Your task to perform on an android device: delete the emails in spam in the gmail app Image 0: 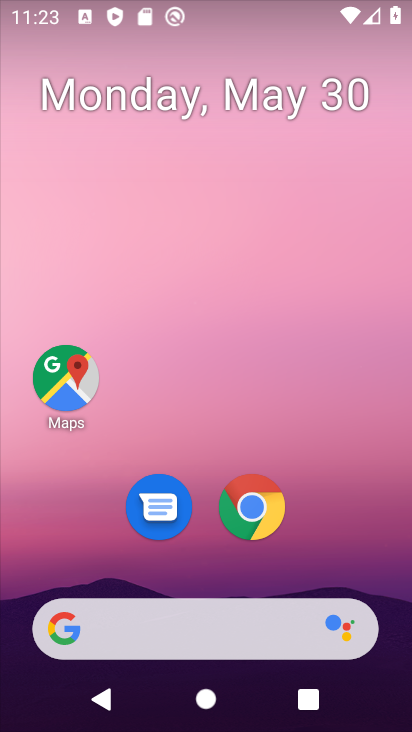
Step 0: drag from (355, 479) to (282, 8)
Your task to perform on an android device: delete the emails in spam in the gmail app Image 1: 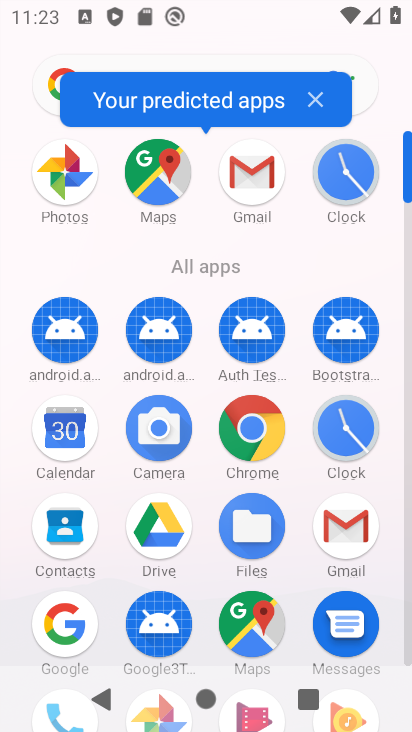
Step 1: click (250, 185)
Your task to perform on an android device: delete the emails in spam in the gmail app Image 2: 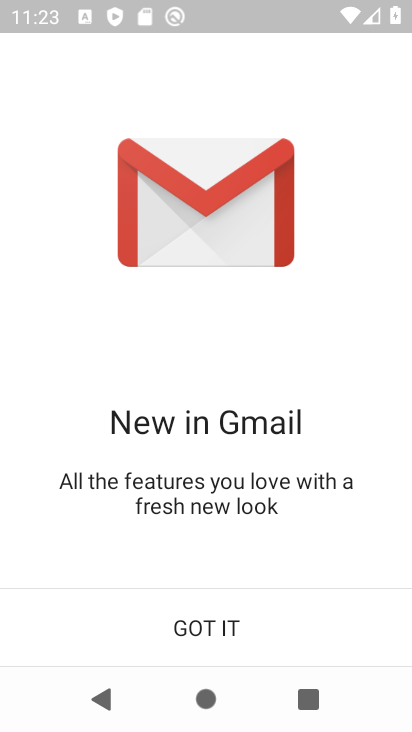
Step 2: click (210, 605)
Your task to perform on an android device: delete the emails in spam in the gmail app Image 3: 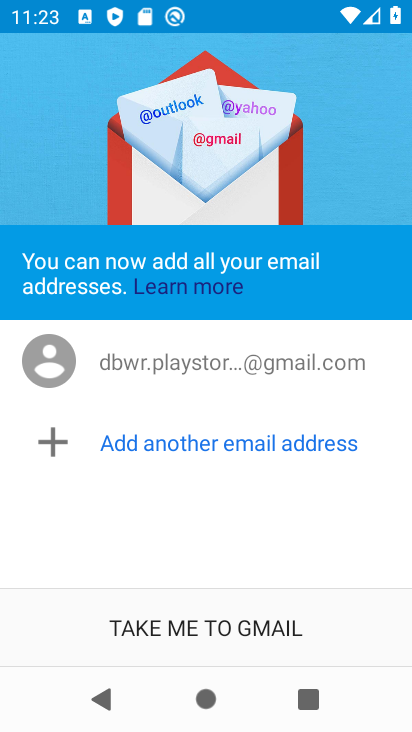
Step 3: click (224, 620)
Your task to perform on an android device: delete the emails in spam in the gmail app Image 4: 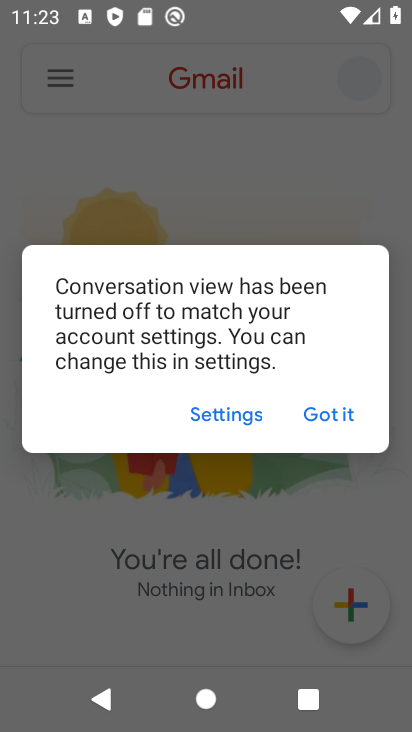
Step 4: click (318, 412)
Your task to perform on an android device: delete the emails in spam in the gmail app Image 5: 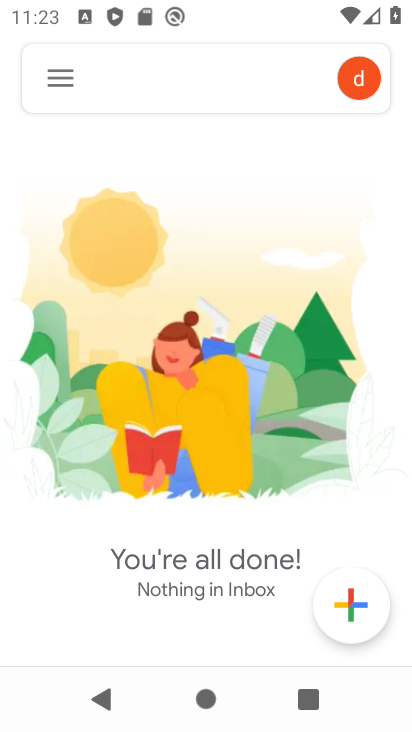
Step 5: click (79, 81)
Your task to perform on an android device: delete the emails in spam in the gmail app Image 6: 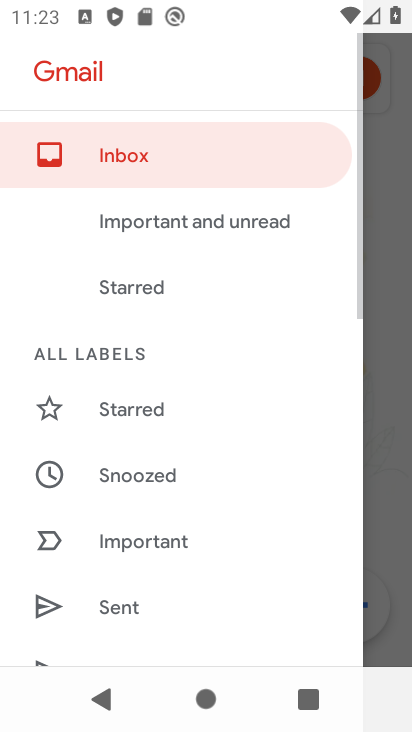
Step 6: drag from (156, 584) to (201, 155)
Your task to perform on an android device: delete the emails in spam in the gmail app Image 7: 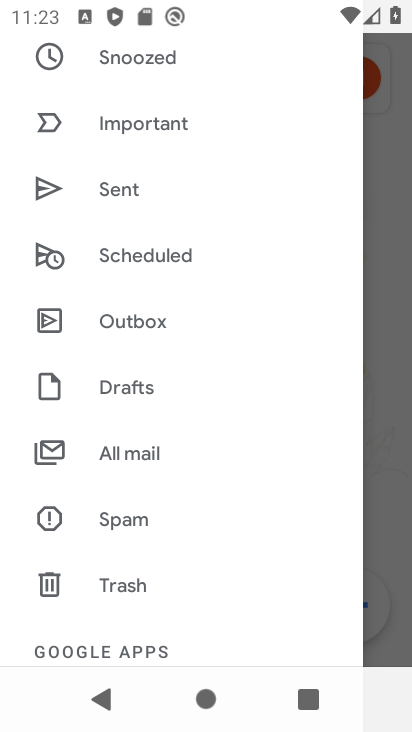
Step 7: click (139, 520)
Your task to perform on an android device: delete the emails in spam in the gmail app Image 8: 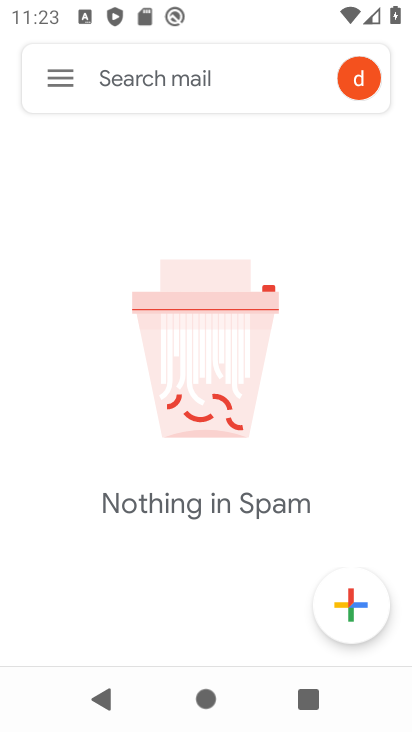
Step 8: task complete